Your task to perform on an android device: Go to battery settings Image 0: 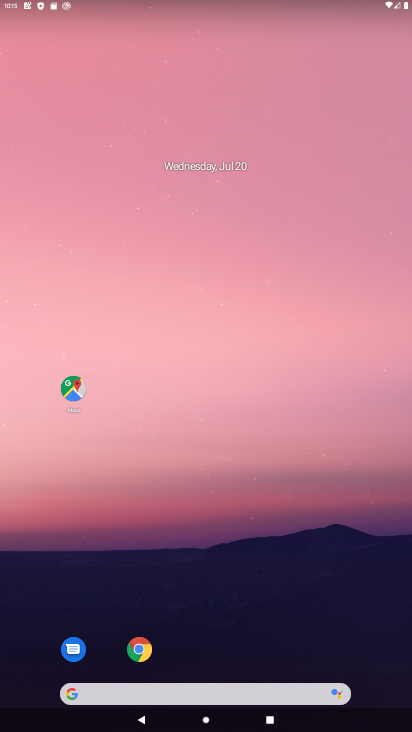
Step 0: drag from (314, 650) to (303, 67)
Your task to perform on an android device: Go to battery settings Image 1: 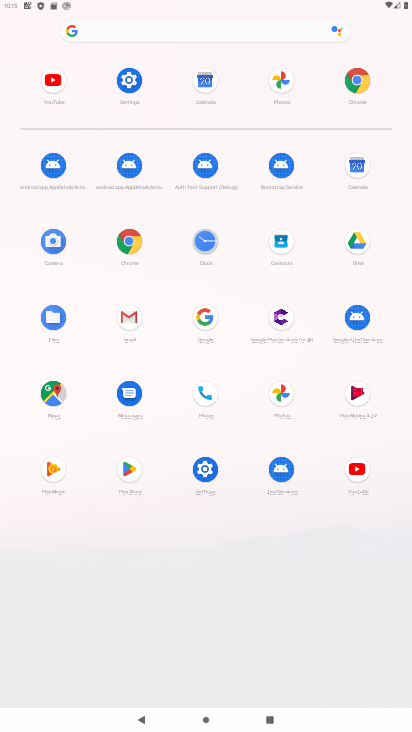
Step 1: click (134, 80)
Your task to perform on an android device: Go to battery settings Image 2: 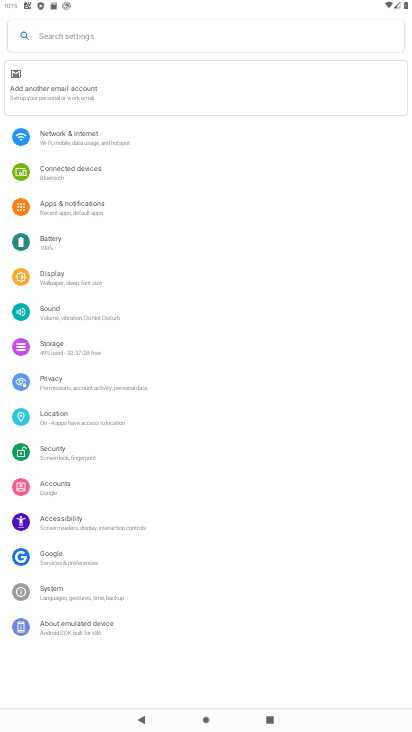
Step 2: click (95, 233)
Your task to perform on an android device: Go to battery settings Image 3: 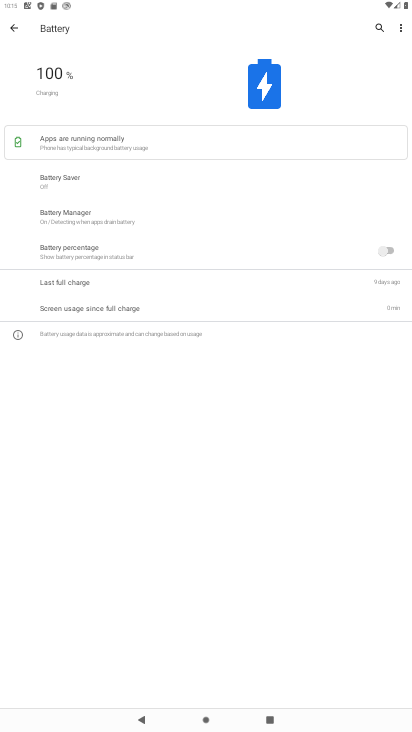
Step 3: task complete